Your task to perform on an android device: Go to internet settings Image 0: 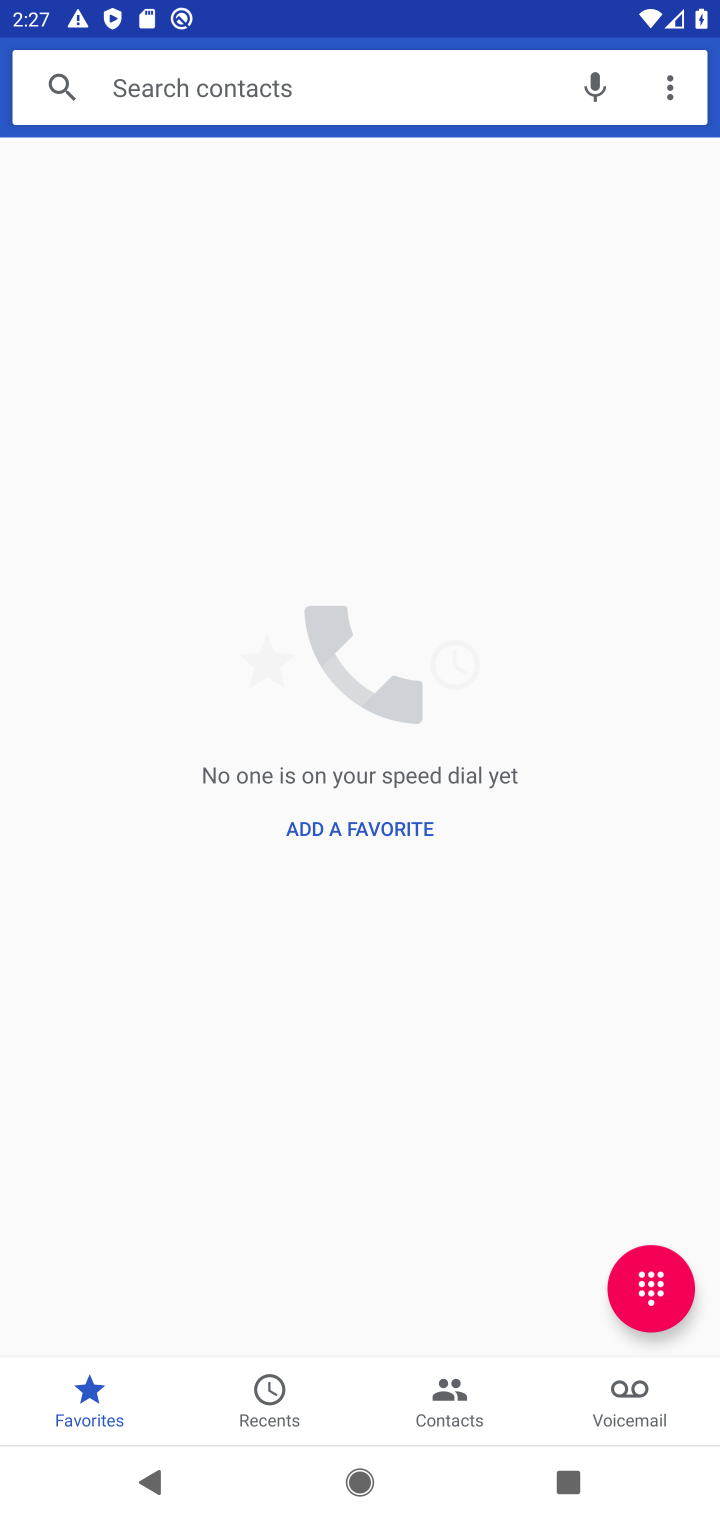
Step 0: press home button
Your task to perform on an android device: Go to internet settings Image 1: 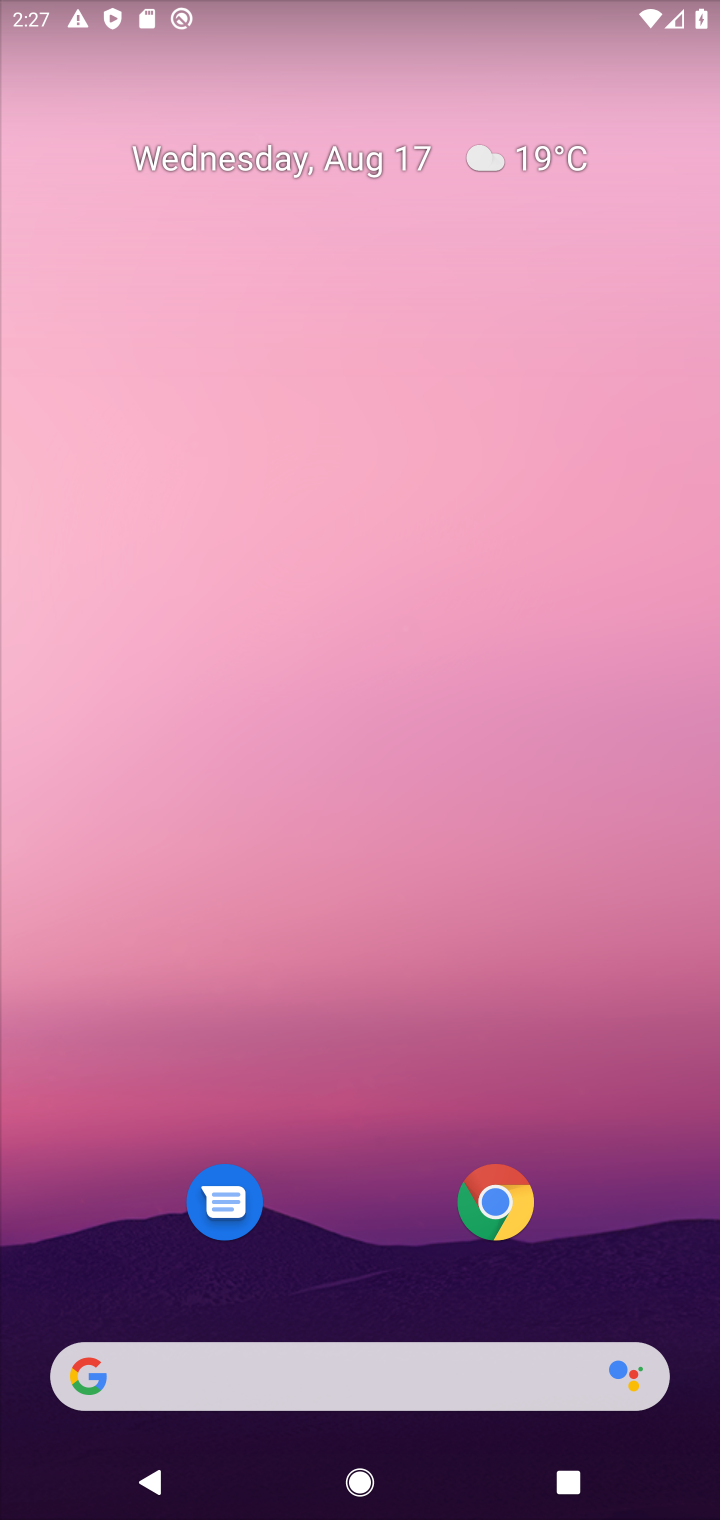
Step 1: drag from (343, 1196) to (431, 0)
Your task to perform on an android device: Go to internet settings Image 2: 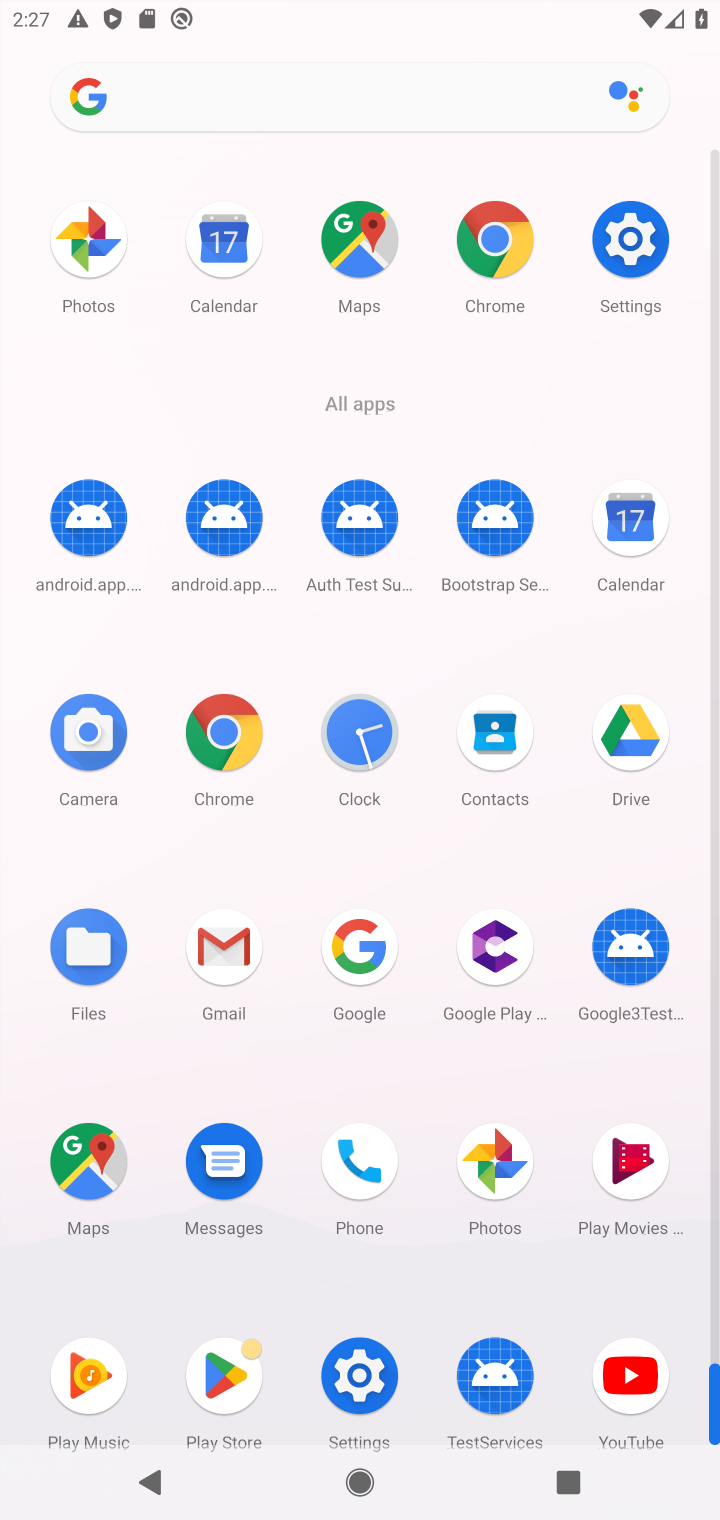
Step 2: click (335, 1352)
Your task to perform on an android device: Go to internet settings Image 3: 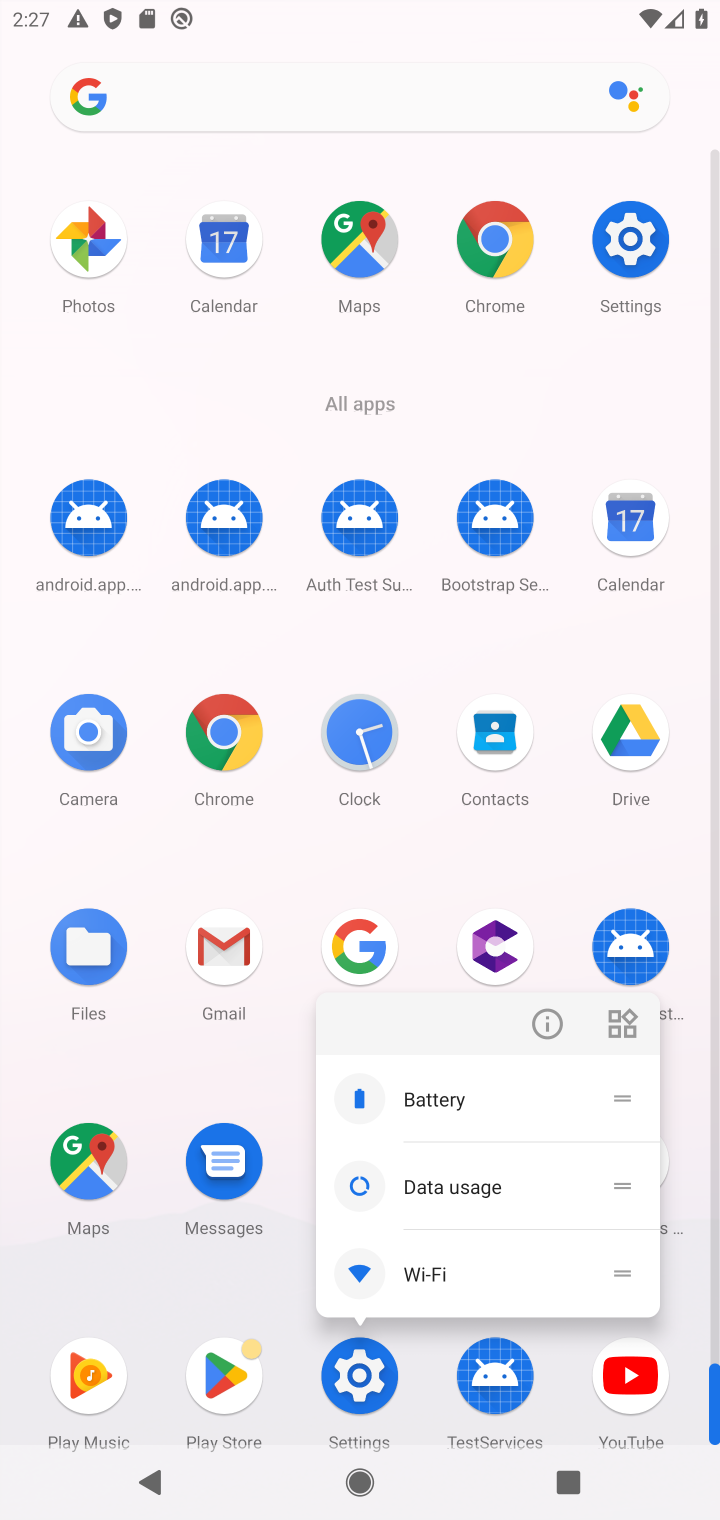
Step 3: click (367, 1355)
Your task to perform on an android device: Go to internet settings Image 4: 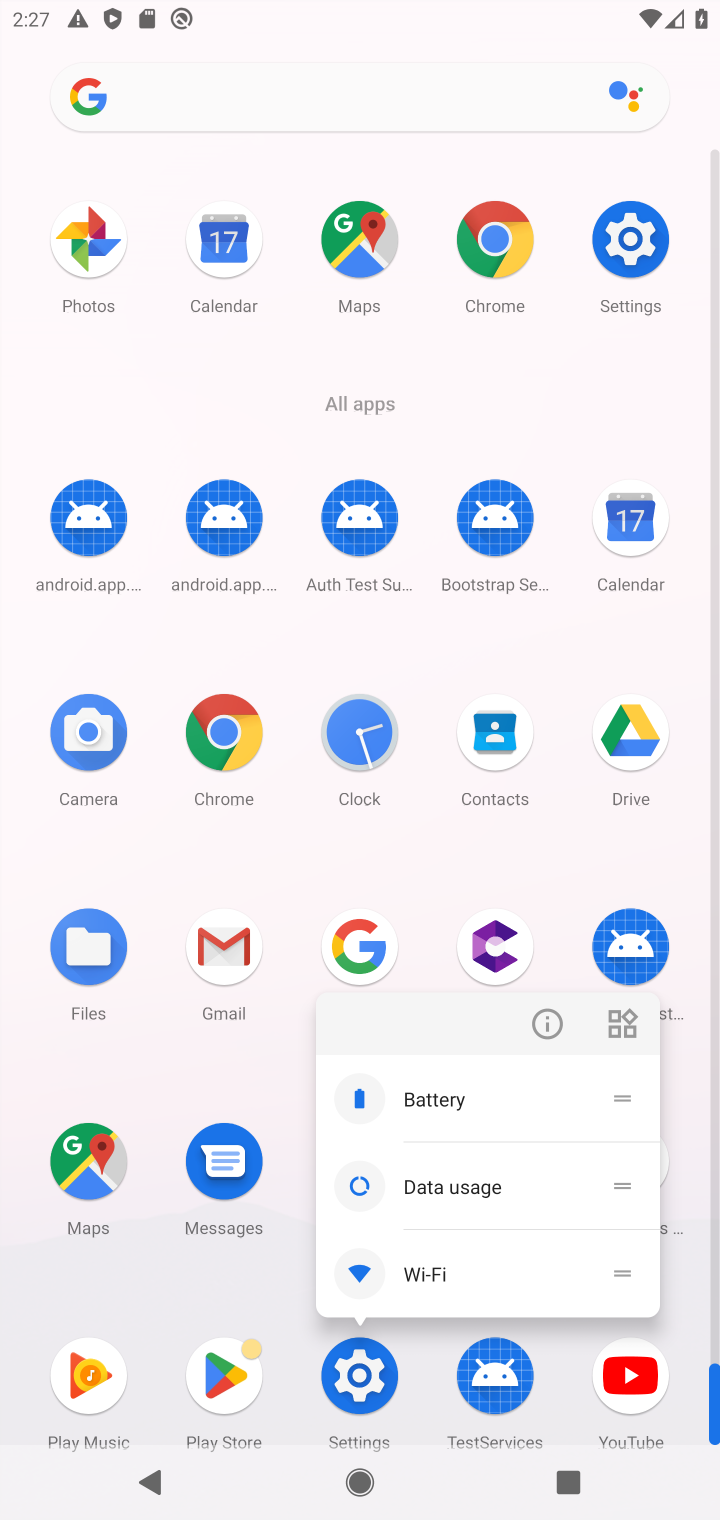
Step 4: click (367, 1355)
Your task to perform on an android device: Go to internet settings Image 5: 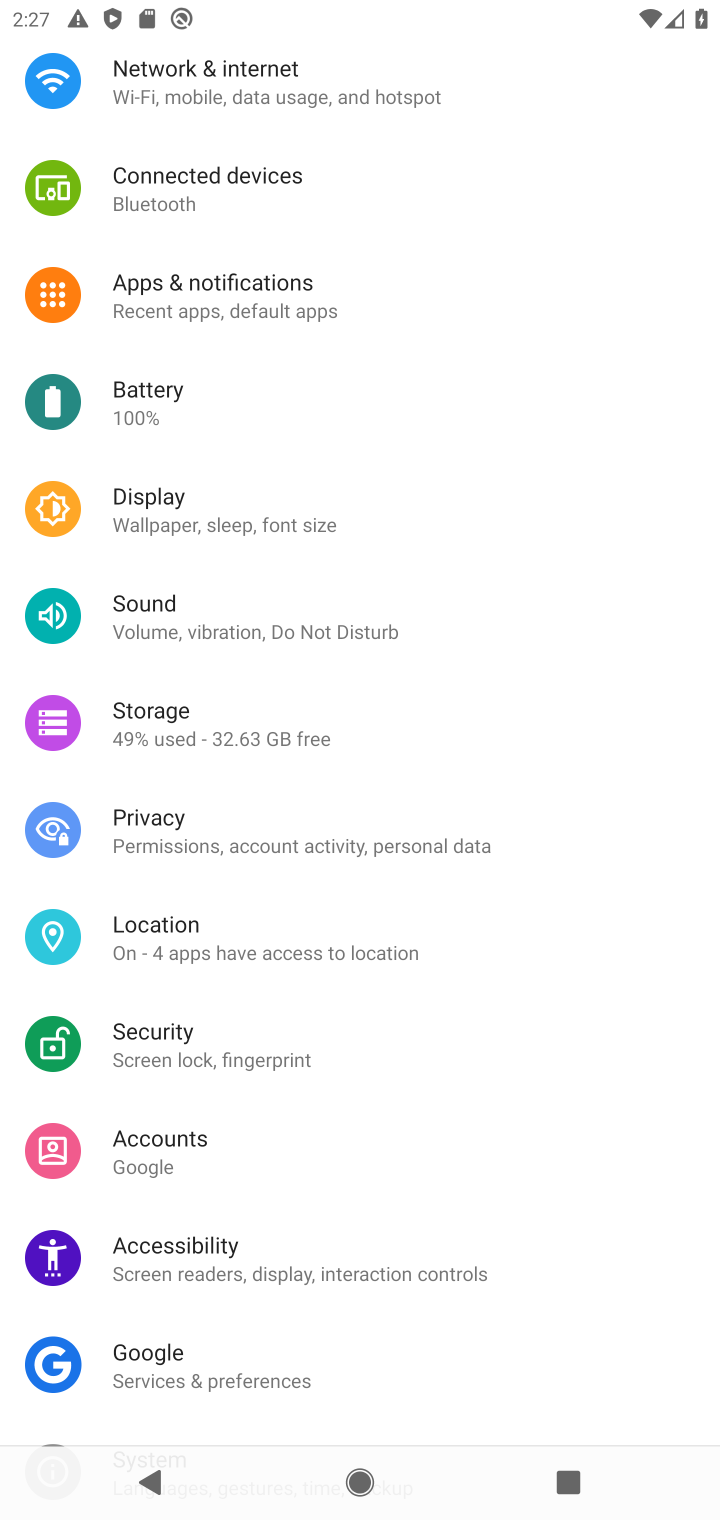
Step 5: drag from (365, 398) to (418, 926)
Your task to perform on an android device: Go to internet settings Image 6: 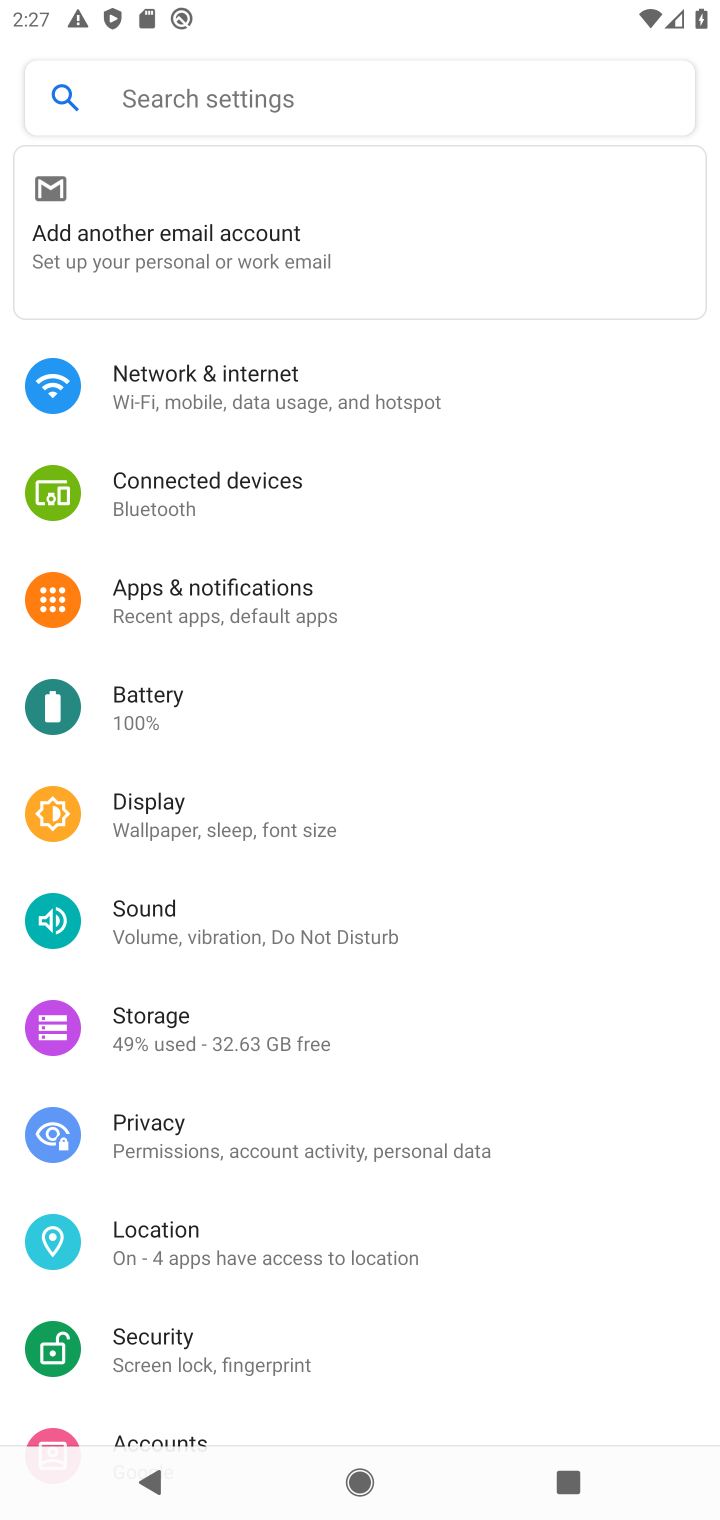
Step 6: click (228, 401)
Your task to perform on an android device: Go to internet settings Image 7: 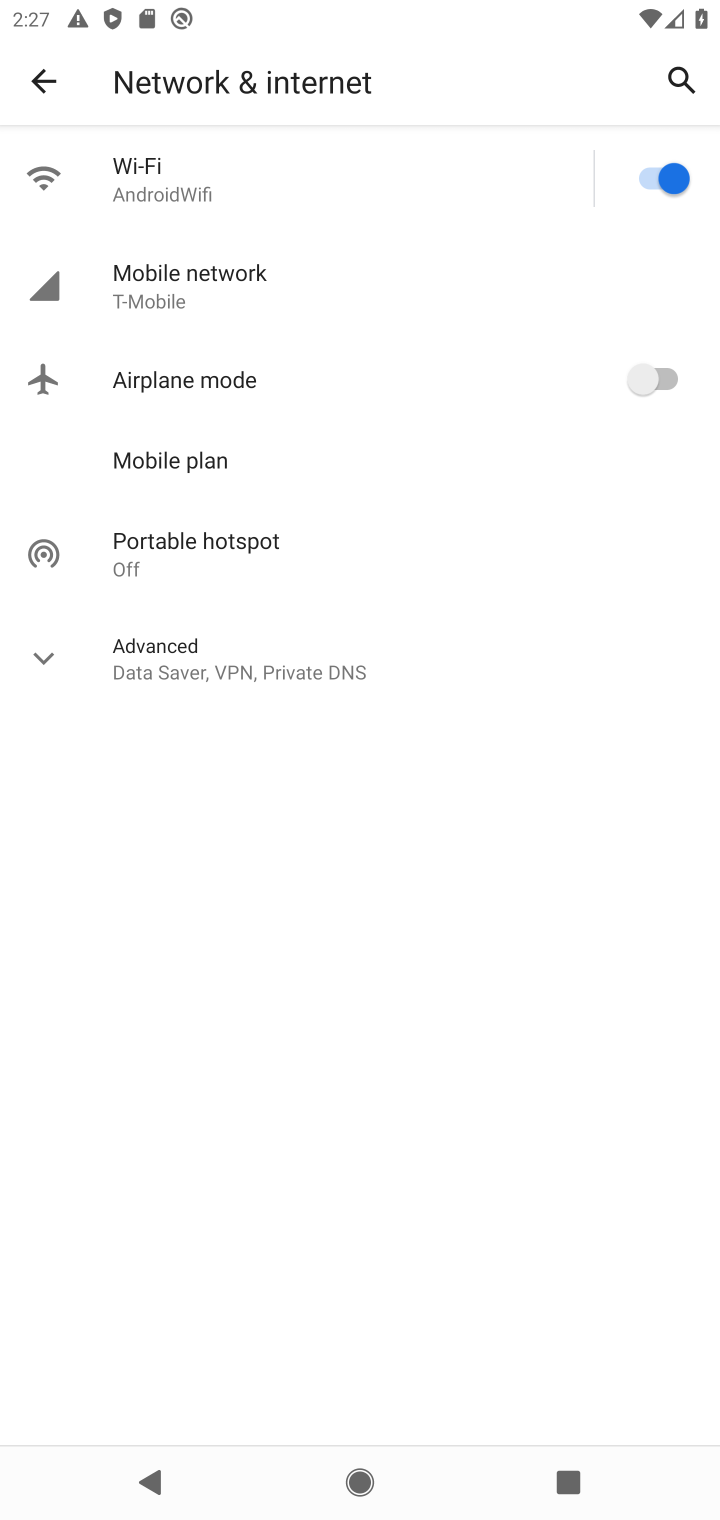
Step 7: task complete